Your task to perform on an android device: open app "YouTube Kids" (install if not already installed) and enter user name: "atmospheric@gmail.com" and password: "raze" Image 0: 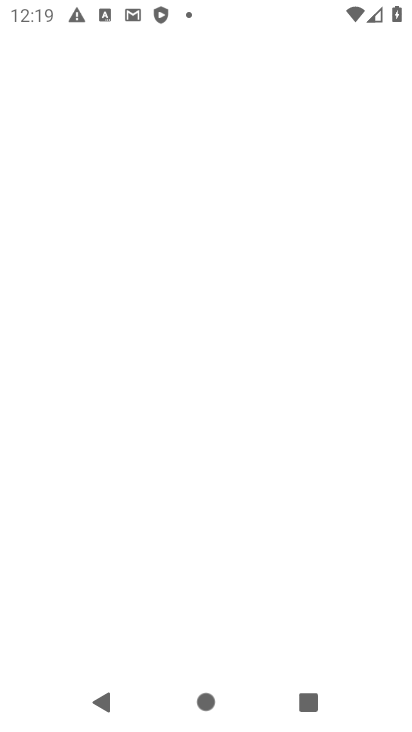
Step 0: press home button
Your task to perform on an android device: open app "YouTube Kids" (install if not already installed) and enter user name: "atmospheric@gmail.com" and password: "raze" Image 1: 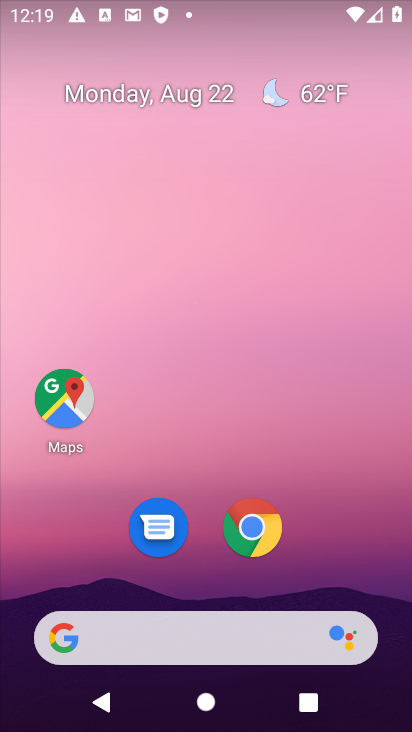
Step 1: drag from (186, 588) to (167, 15)
Your task to perform on an android device: open app "YouTube Kids" (install if not already installed) and enter user name: "atmospheric@gmail.com" and password: "raze" Image 2: 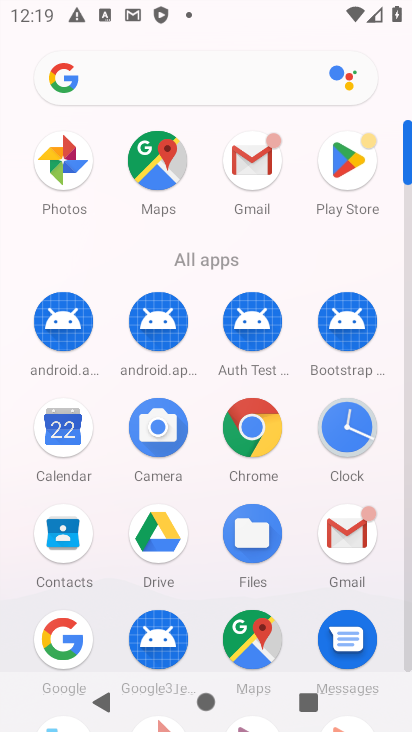
Step 2: click (347, 180)
Your task to perform on an android device: open app "YouTube Kids" (install if not already installed) and enter user name: "atmospheric@gmail.com" and password: "raze" Image 3: 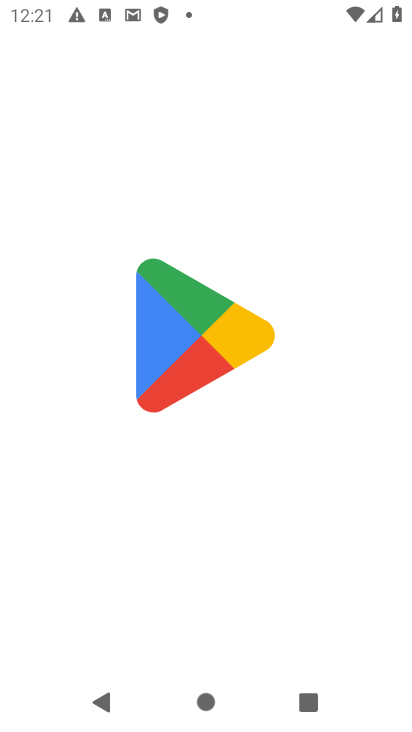
Step 3: task complete